Your task to perform on an android device: Go to privacy settings Image 0: 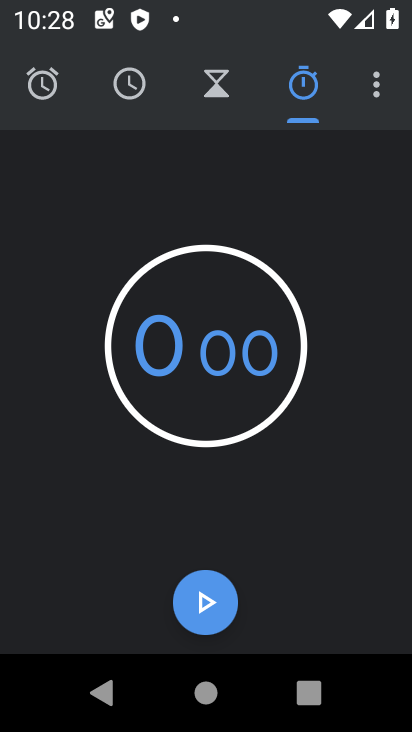
Step 0: press home button
Your task to perform on an android device: Go to privacy settings Image 1: 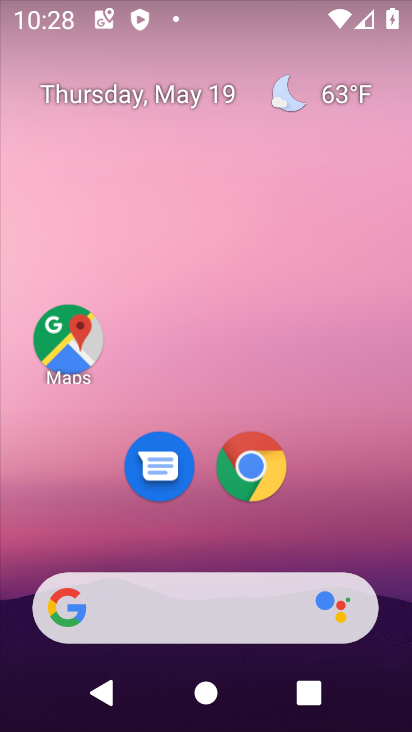
Step 1: drag from (380, 640) to (312, 98)
Your task to perform on an android device: Go to privacy settings Image 2: 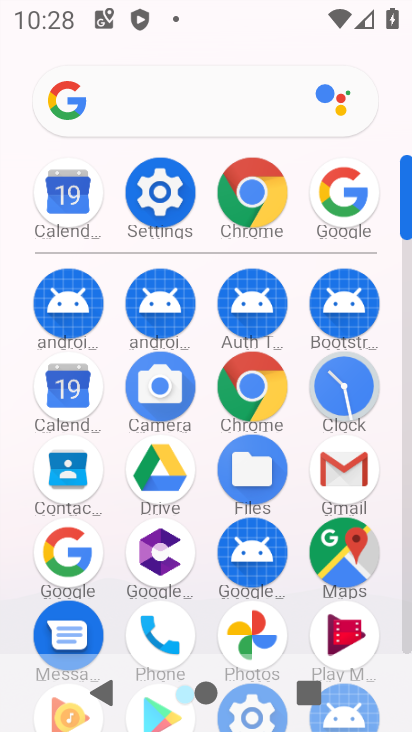
Step 2: click (160, 222)
Your task to perform on an android device: Go to privacy settings Image 3: 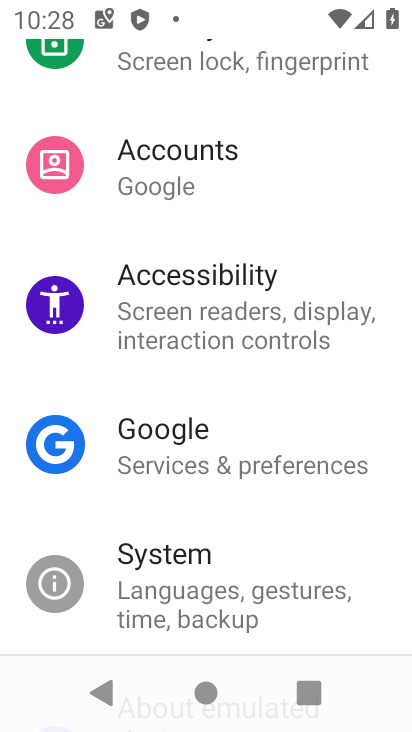
Step 3: drag from (174, 587) to (230, 141)
Your task to perform on an android device: Go to privacy settings Image 4: 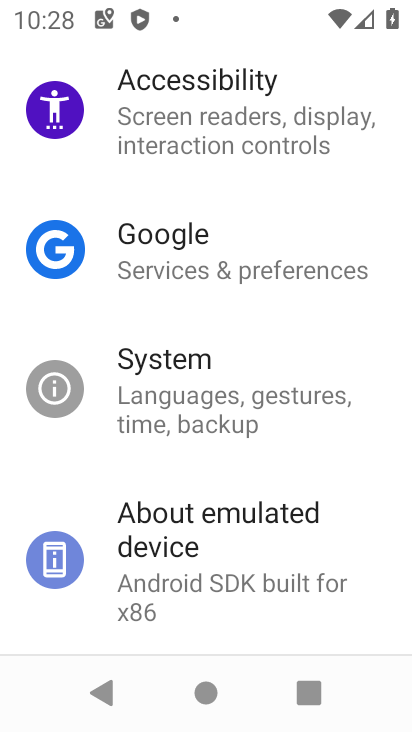
Step 4: drag from (232, 144) to (200, 538)
Your task to perform on an android device: Go to privacy settings Image 5: 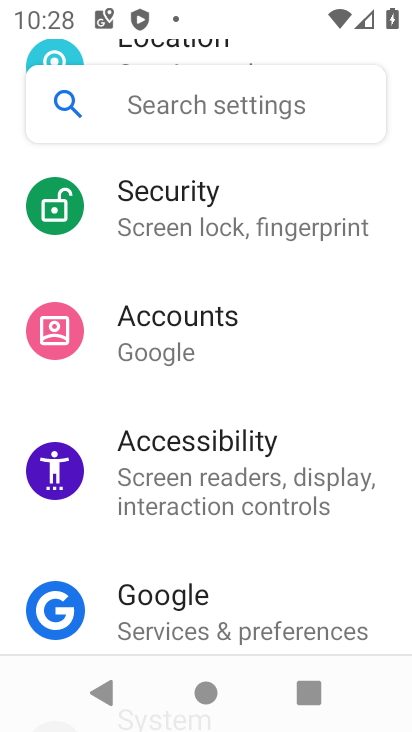
Step 5: drag from (267, 186) to (267, 532)
Your task to perform on an android device: Go to privacy settings Image 6: 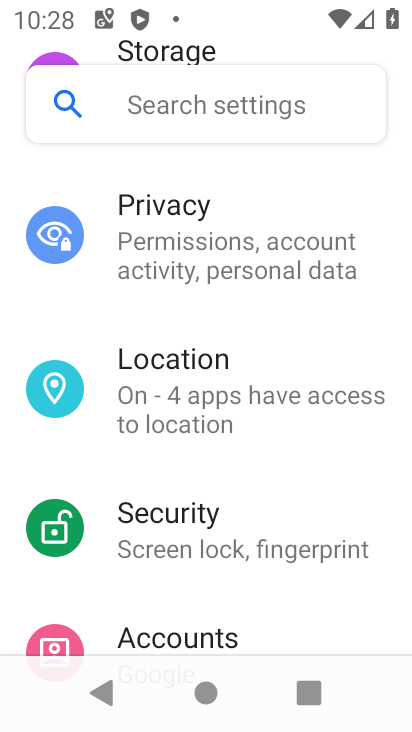
Step 6: click (196, 274)
Your task to perform on an android device: Go to privacy settings Image 7: 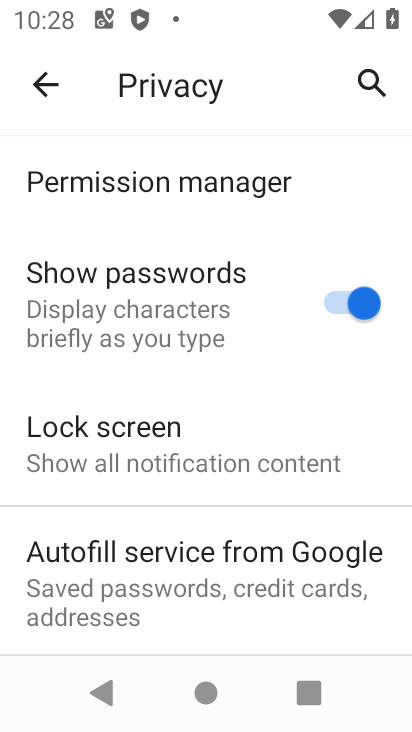
Step 7: task complete